Your task to perform on an android device: delete a single message in the gmail app Image 0: 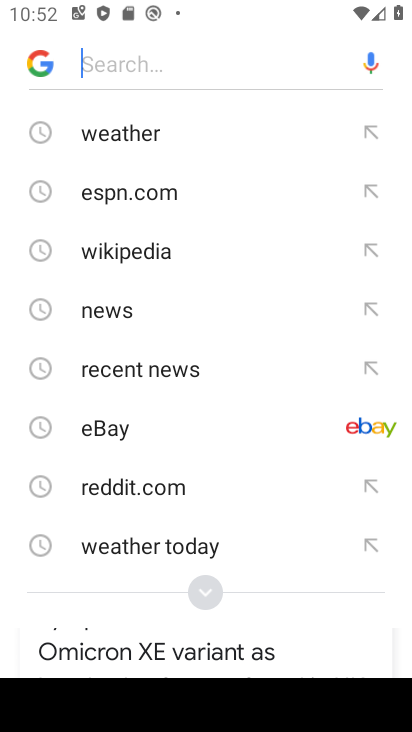
Step 0: press home button
Your task to perform on an android device: delete a single message in the gmail app Image 1: 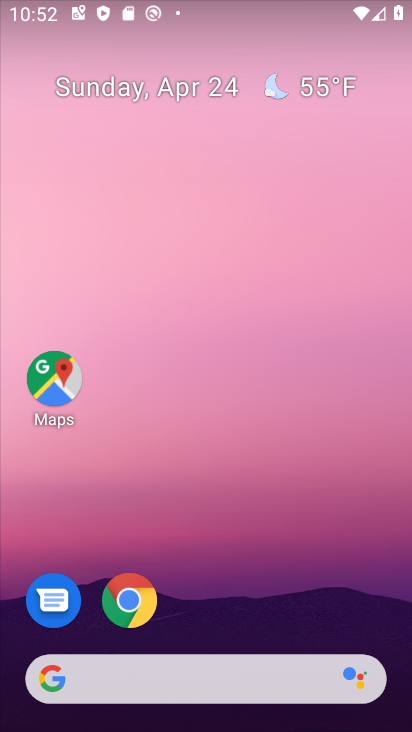
Step 1: drag from (239, 559) to (242, 130)
Your task to perform on an android device: delete a single message in the gmail app Image 2: 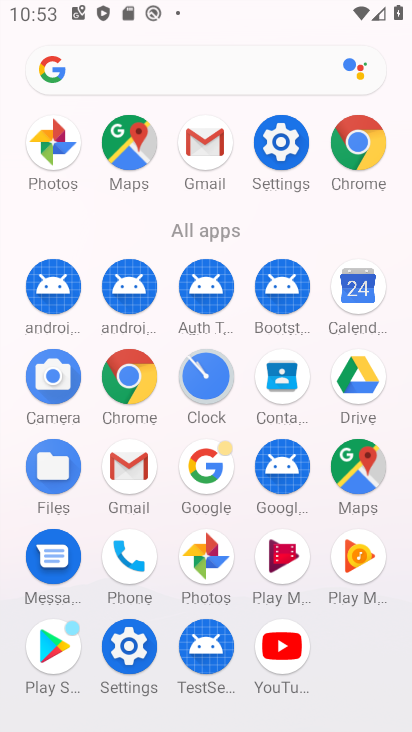
Step 2: click (137, 468)
Your task to perform on an android device: delete a single message in the gmail app Image 3: 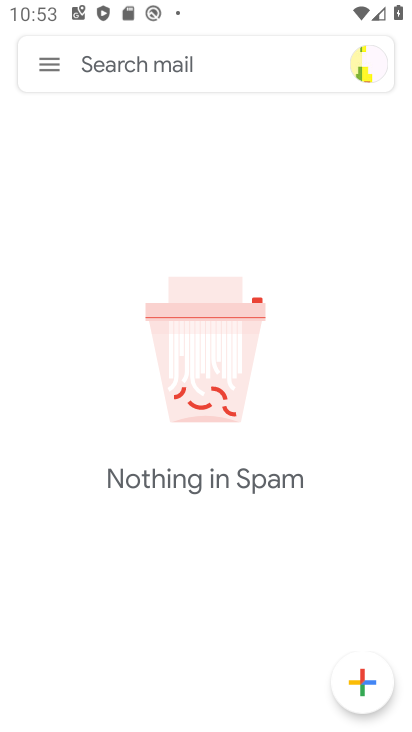
Step 3: click (37, 55)
Your task to perform on an android device: delete a single message in the gmail app Image 4: 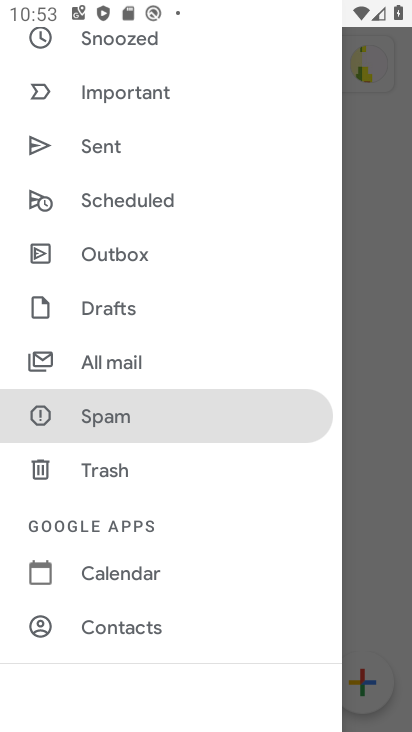
Step 4: click (114, 362)
Your task to perform on an android device: delete a single message in the gmail app Image 5: 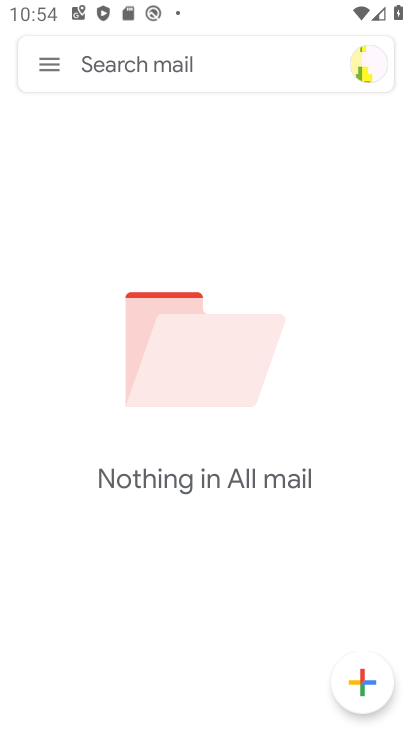
Step 5: task complete